Your task to perform on an android device: Open Yahoo.com Image 0: 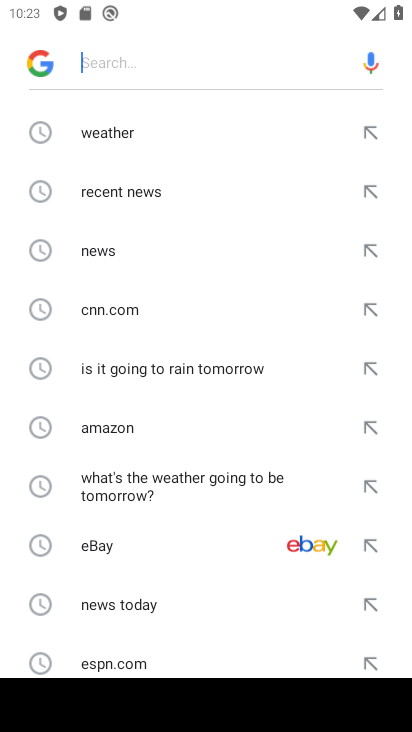
Step 0: press home button
Your task to perform on an android device: Open Yahoo.com Image 1: 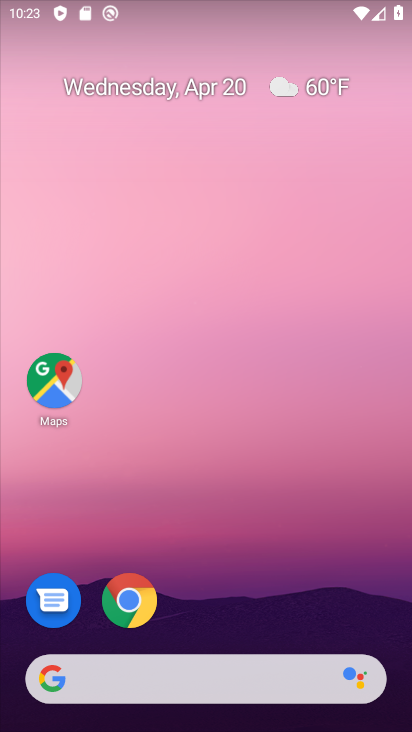
Step 1: click (126, 605)
Your task to perform on an android device: Open Yahoo.com Image 2: 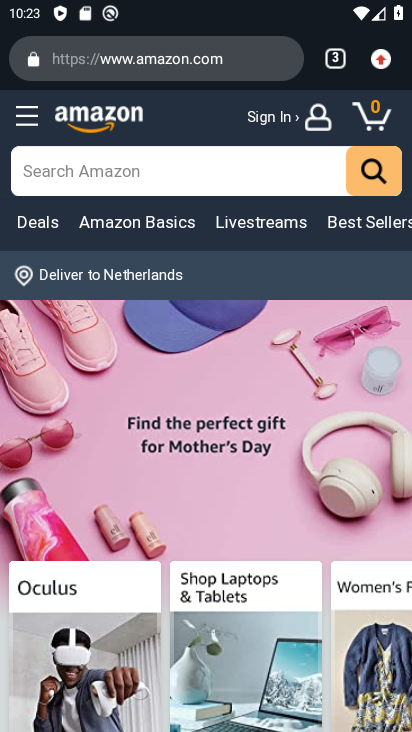
Step 2: click (337, 59)
Your task to perform on an android device: Open Yahoo.com Image 3: 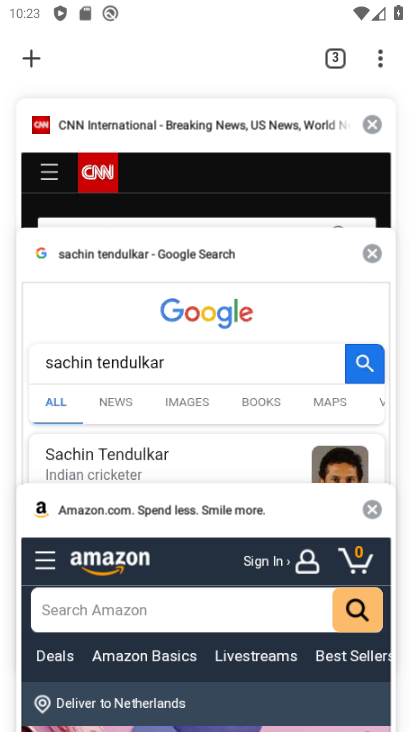
Step 3: click (31, 56)
Your task to perform on an android device: Open Yahoo.com Image 4: 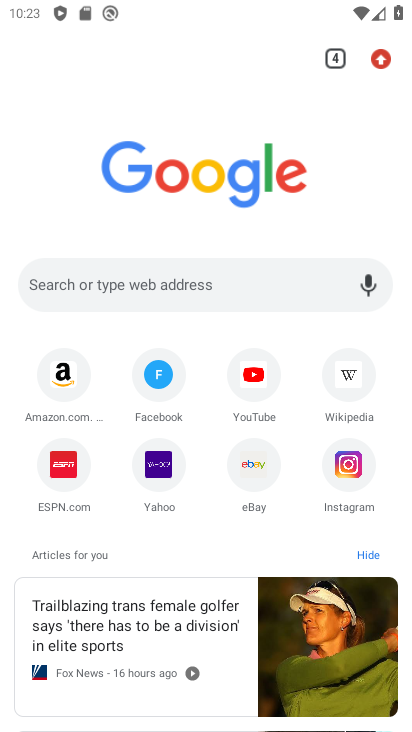
Step 4: click (157, 469)
Your task to perform on an android device: Open Yahoo.com Image 5: 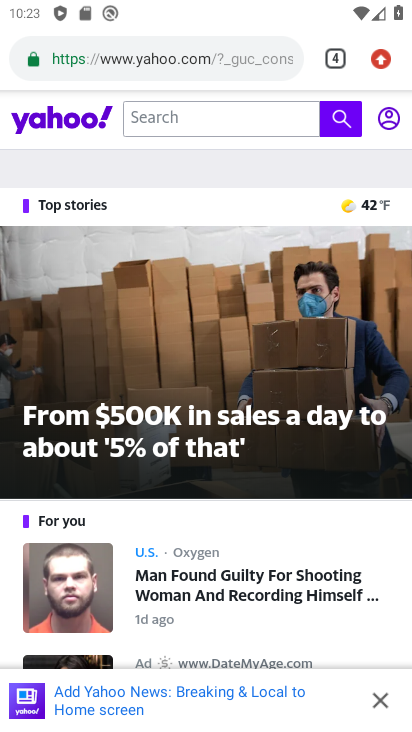
Step 5: task complete